Your task to perform on an android device: Open Yahoo.com Image 0: 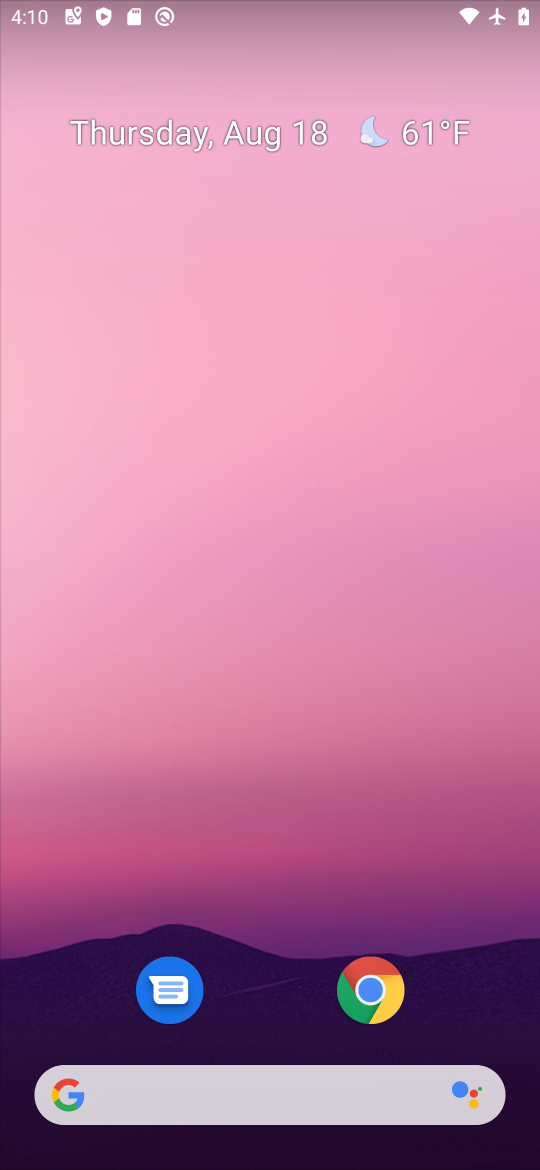
Step 0: drag from (260, 939) to (436, 103)
Your task to perform on an android device: Open Yahoo.com Image 1: 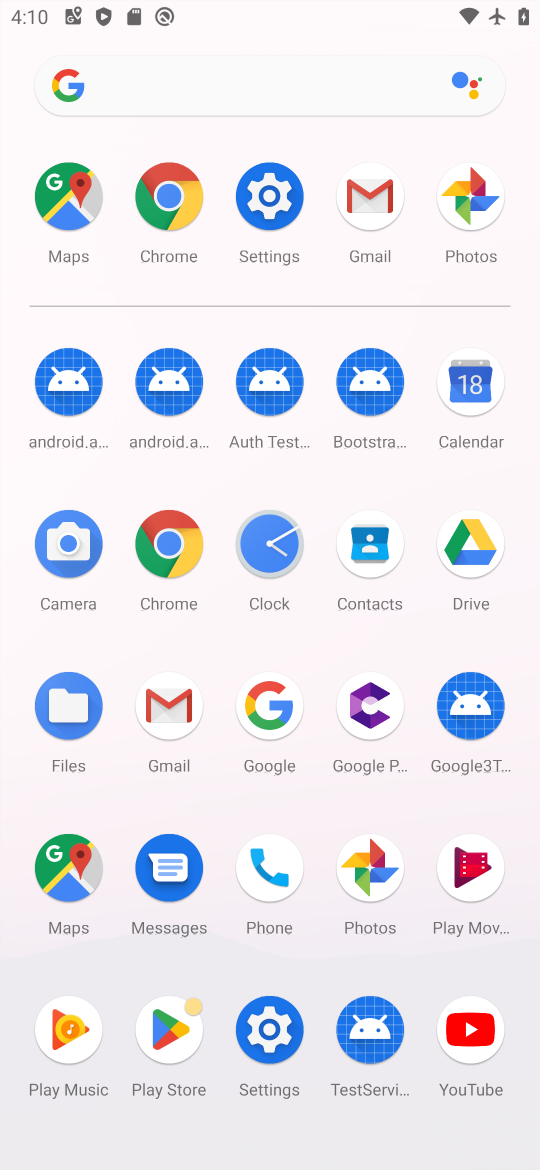
Step 1: click (172, 539)
Your task to perform on an android device: Open Yahoo.com Image 2: 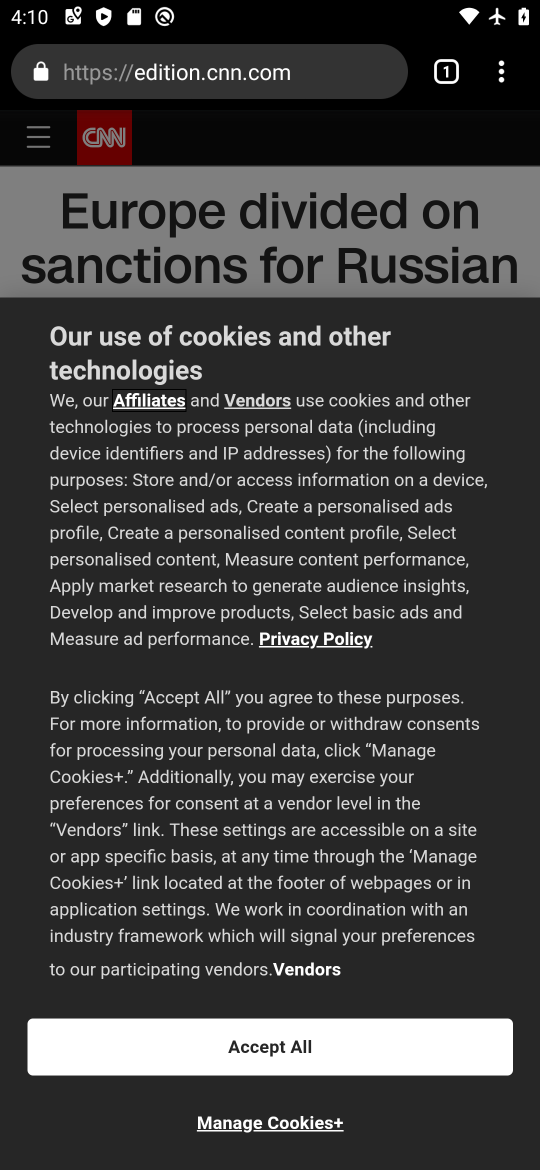
Step 2: click (259, 88)
Your task to perform on an android device: Open Yahoo.com Image 3: 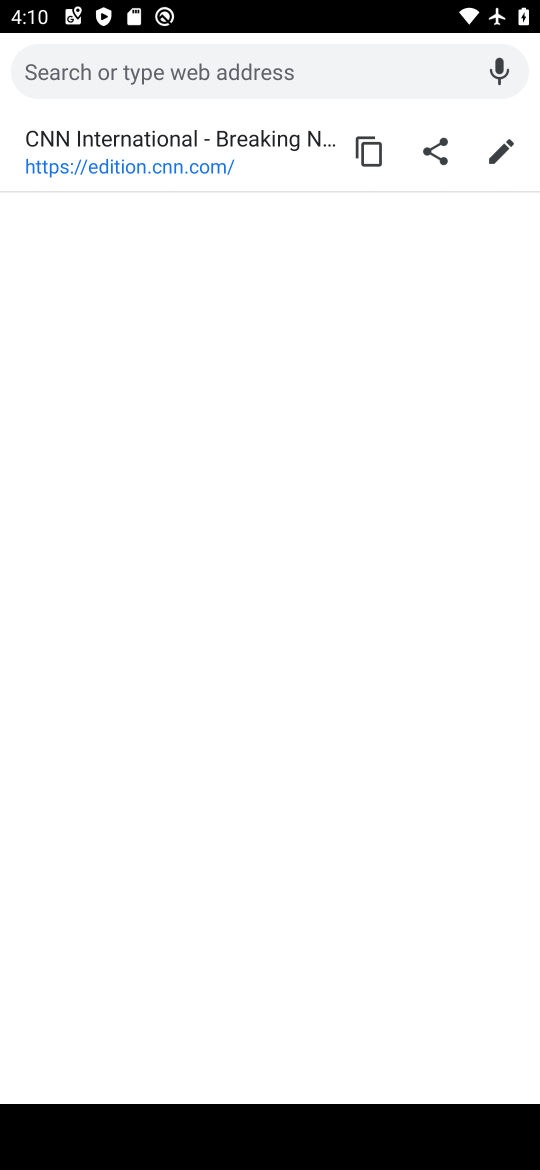
Step 3: type "yahoo.com"
Your task to perform on an android device: Open Yahoo.com Image 4: 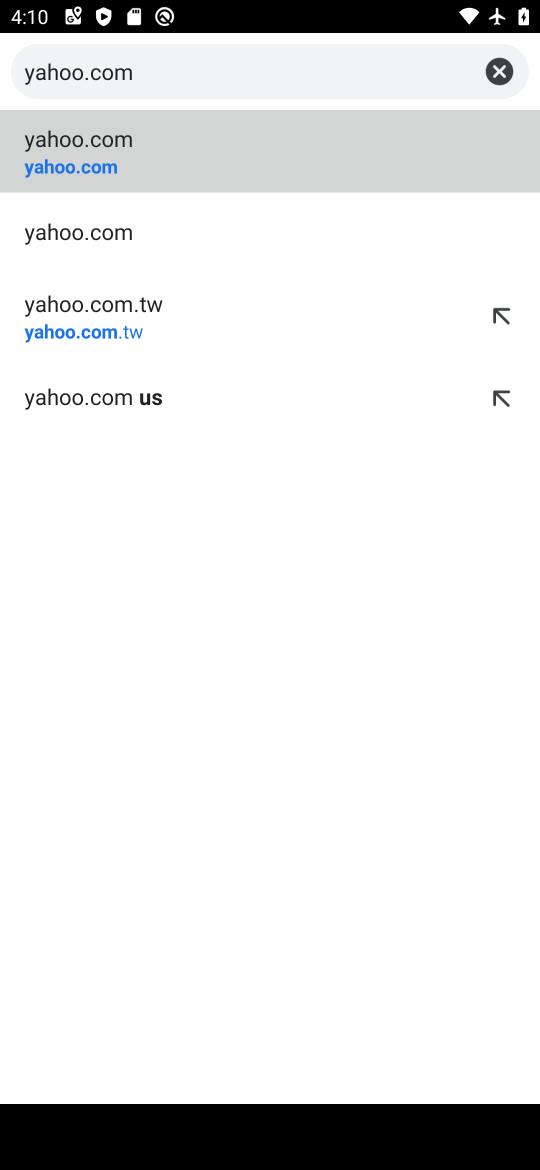
Step 4: click (98, 147)
Your task to perform on an android device: Open Yahoo.com Image 5: 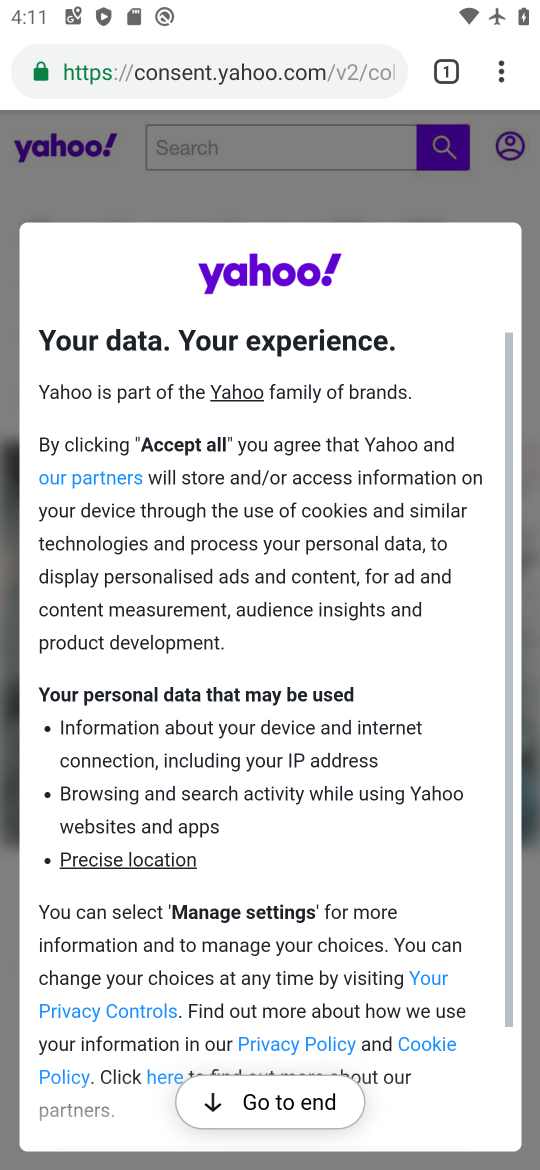
Step 5: task complete